Your task to perform on an android device: show emergency info Image 0: 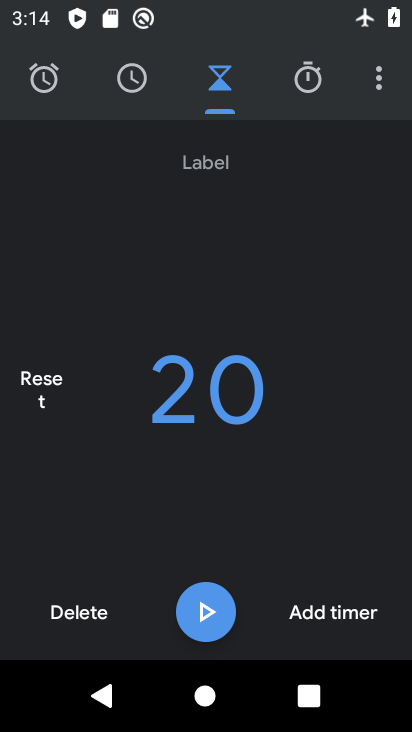
Step 0: press back button
Your task to perform on an android device: show emergency info Image 1: 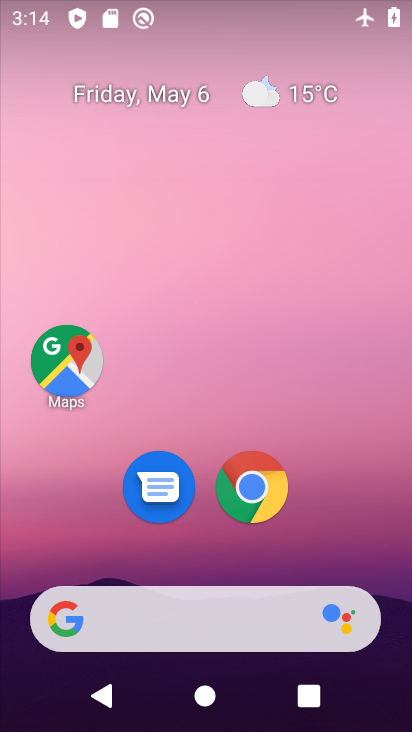
Step 1: drag from (156, 576) to (260, 132)
Your task to perform on an android device: show emergency info Image 2: 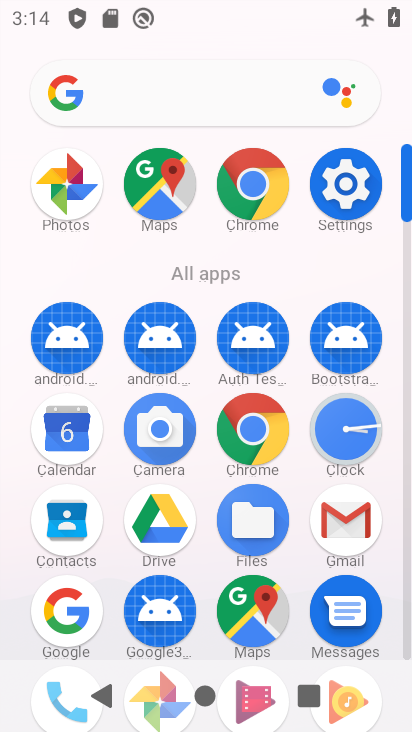
Step 2: drag from (154, 703) to (235, 395)
Your task to perform on an android device: show emergency info Image 3: 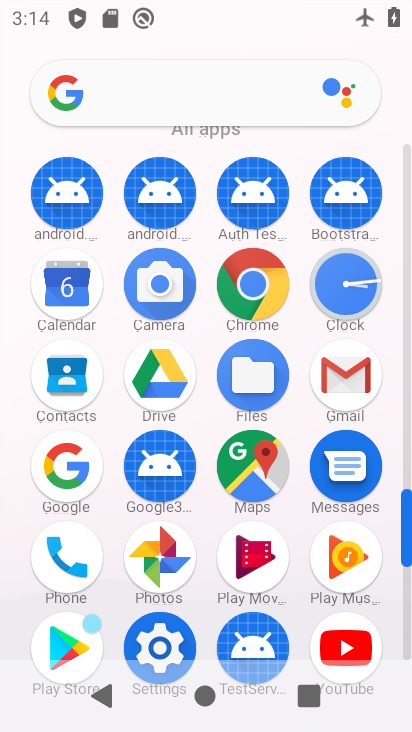
Step 3: click (144, 639)
Your task to perform on an android device: show emergency info Image 4: 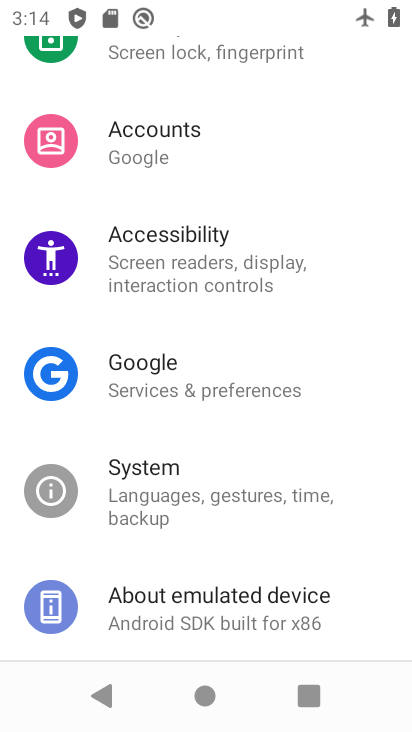
Step 4: click (260, 608)
Your task to perform on an android device: show emergency info Image 5: 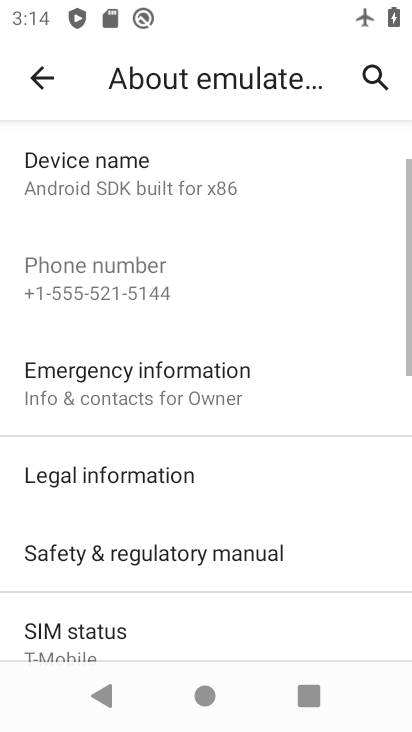
Step 5: task complete